Your task to perform on an android device: change the clock display to show seconds Image 0: 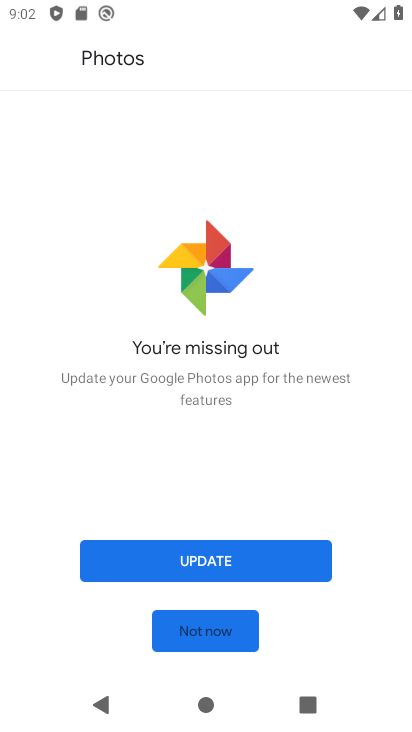
Step 0: press home button
Your task to perform on an android device: change the clock display to show seconds Image 1: 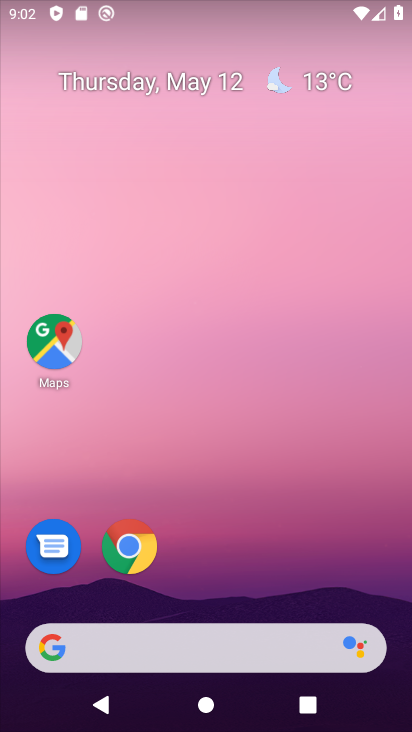
Step 1: drag from (299, 565) to (363, 106)
Your task to perform on an android device: change the clock display to show seconds Image 2: 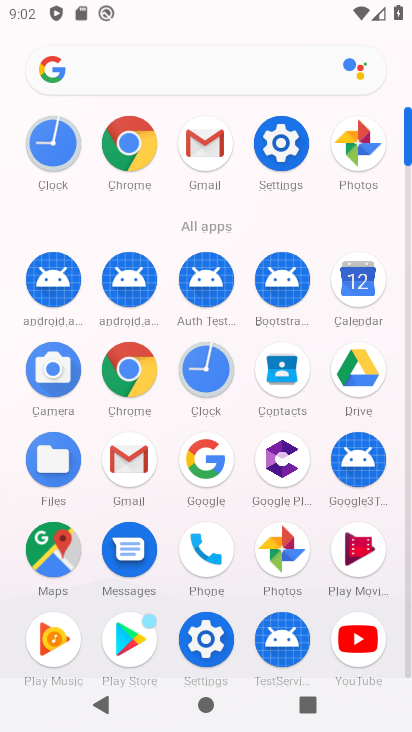
Step 2: click (210, 378)
Your task to perform on an android device: change the clock display to show seconds Image 3: 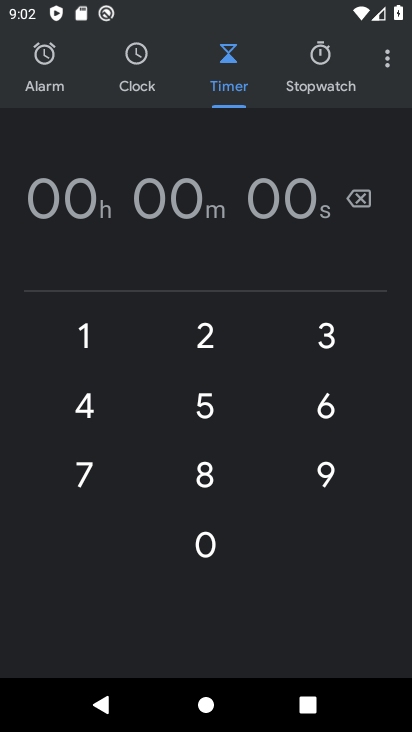
Step 3: click (393, 64)
Your task to perform on an android device: change the clock display to show seconds Image 4: 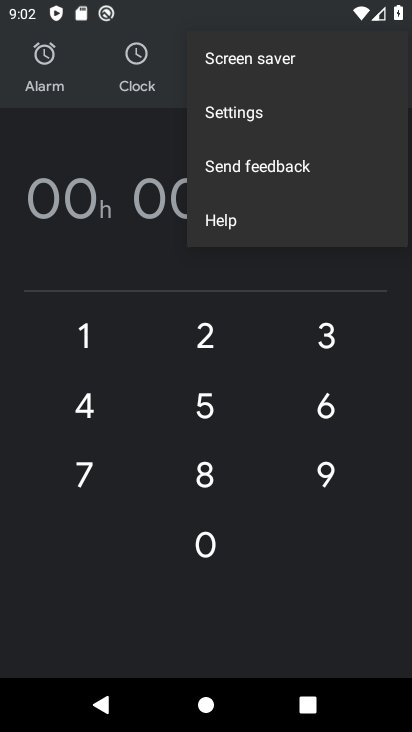
Step 4: click (226, 113)
Your task to perform on an android device: change the clock display to show seconds Image 5: 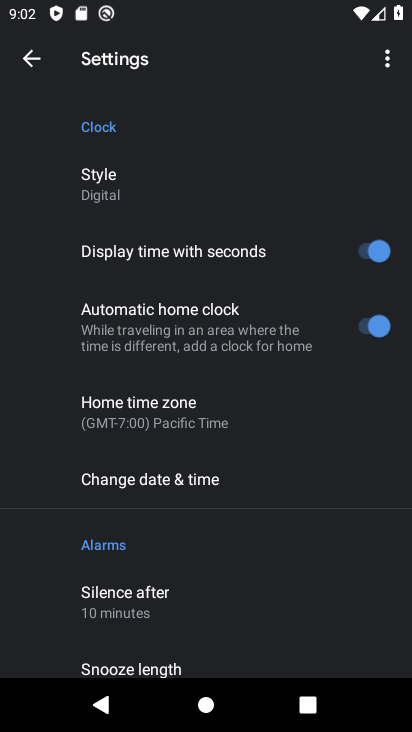
Step 5: task complete